Your task to perform on an android device: turn pop-ups on in chrome Image 0: 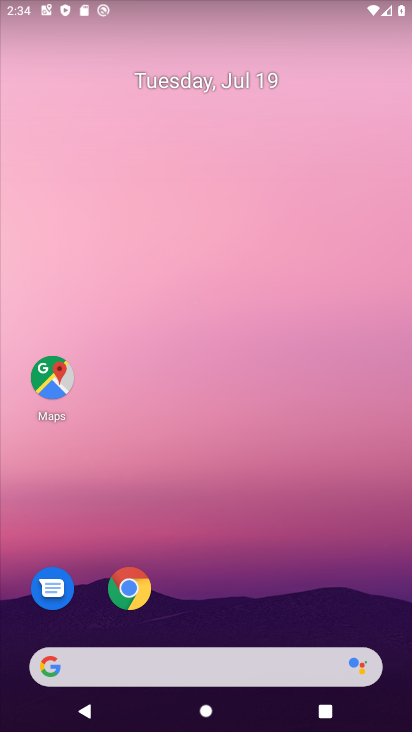
Step 0: click (127, 588)
Your task to perform on an android device: turn pop-ups on in chrome Image 1: 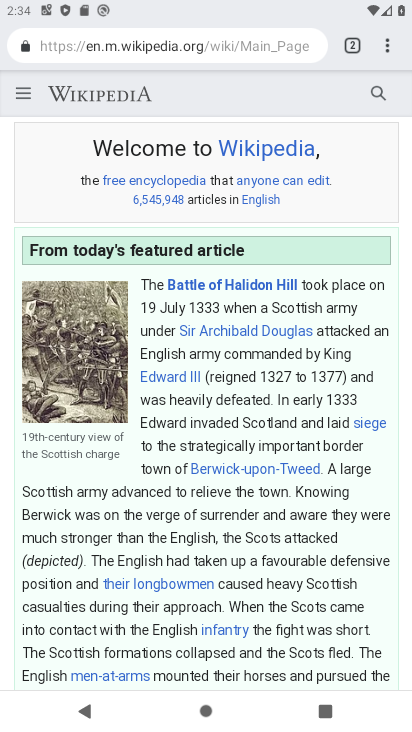
Step 1: click (388, 43)
Your task to perform on an android device: turn pop-ups on in chrome Image 2: 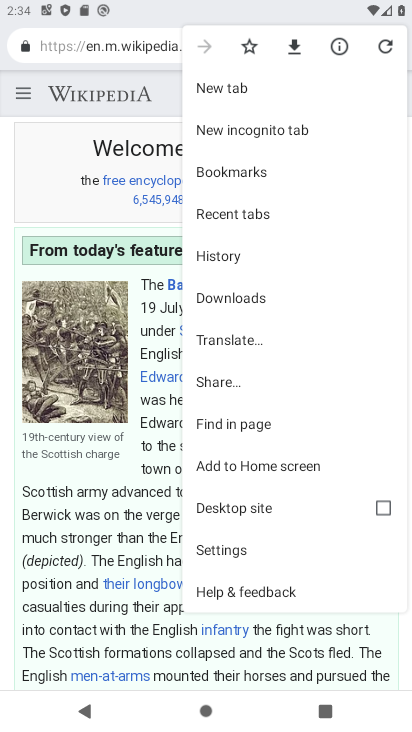
Step 2: click (227, 558)
Your task to perform on an android device: turn pop-ups on in chrome Image 3: 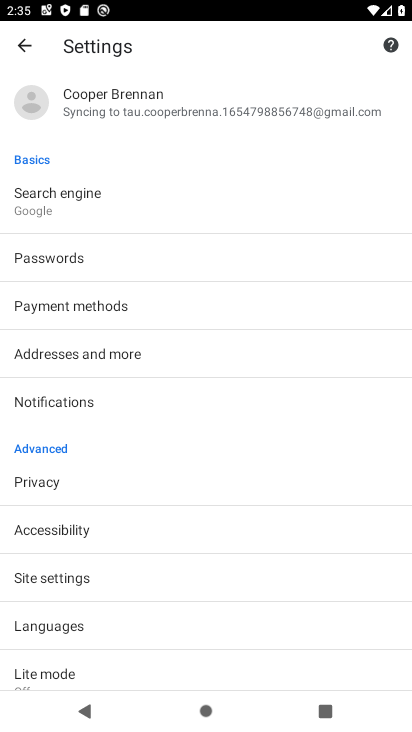
Step 3: drag from (125, 619) to (121, 451)
Your task to perform on an android device: turn pop-ups on in chrome Image 4: 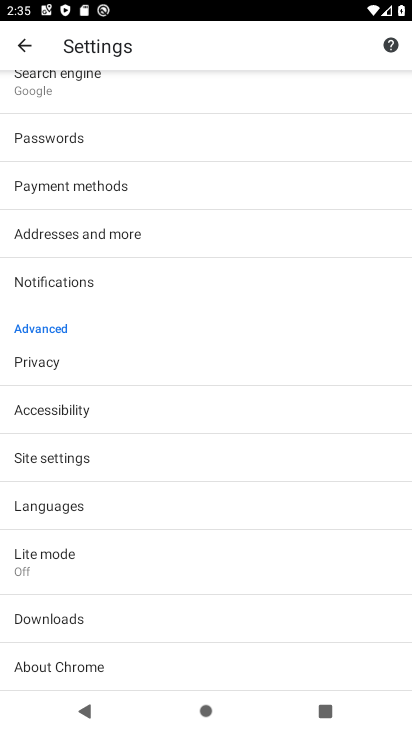
Step 4: drag from (112, 579) to (132, 396)
Your task to perform on an android device: turn pop-ups on in chrome Image 5: 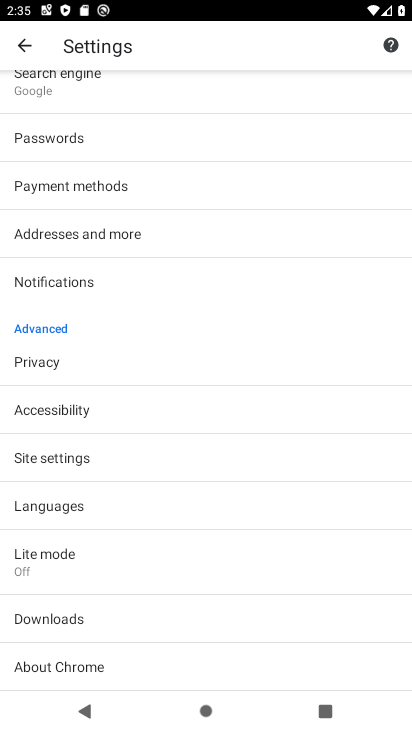
Step 5: click (77, 459)
Your task to perform on an android device: turn pop-ups on in chrome Image 6: 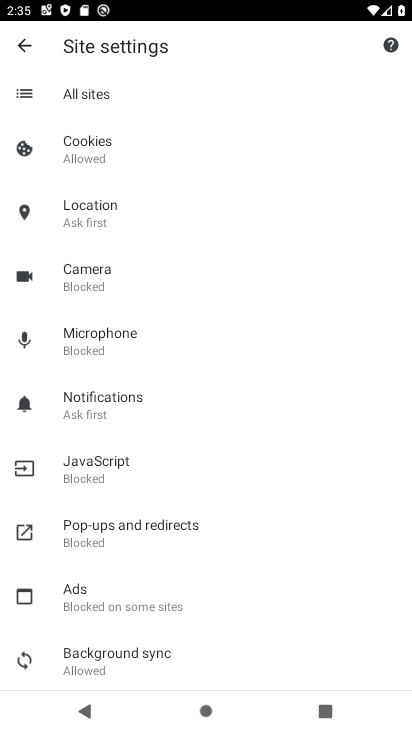
Step 6: click (98, 531)
Your task to perform on an android device: turn pop-ups on in chrome Image 7: 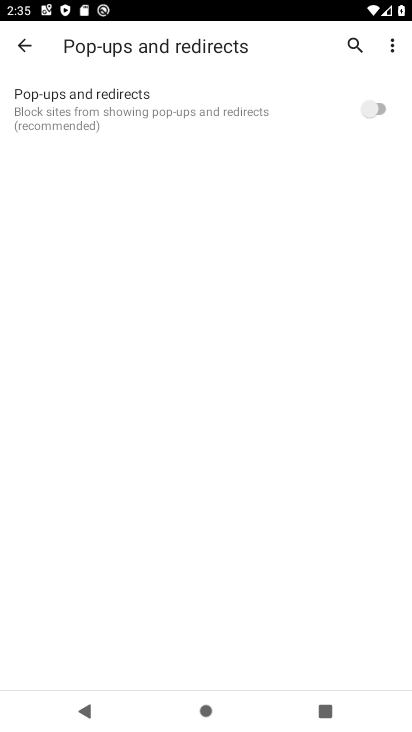
Step 7: click (380, 109)
Your task to perform on an android device: turn pop-ups on in chrome Image 8: 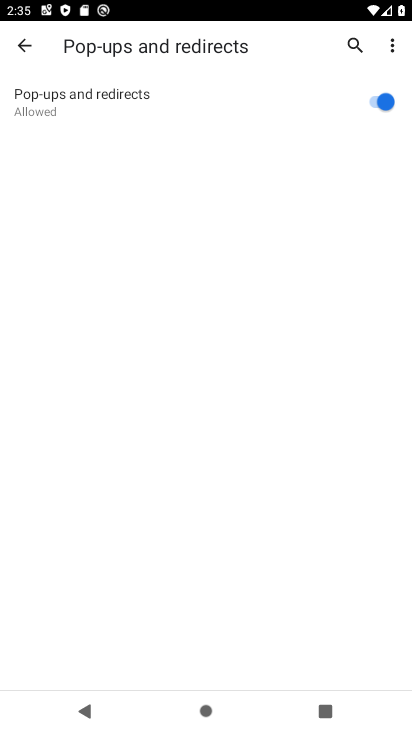
Step 8: task complete